Your task to perform on an android device: Search for seafood restaurants on Google Maps Image 0: 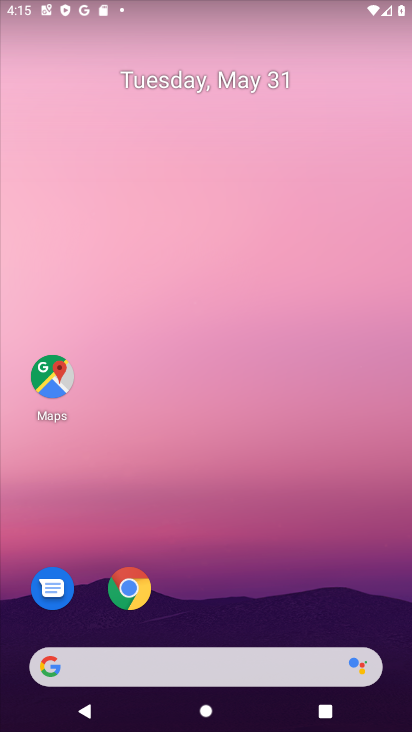
Step 0: click (186, 626)
Your task to perform on an android device: Search for seafood restaurants on Google Maps Image 1: 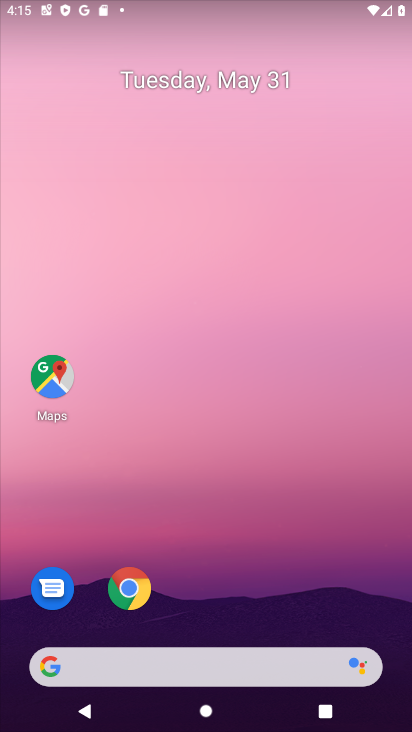
Step 1: click (52, 377)
Your task to perform on an android device: Search for seafood restaurants on Google Maps Image 2: 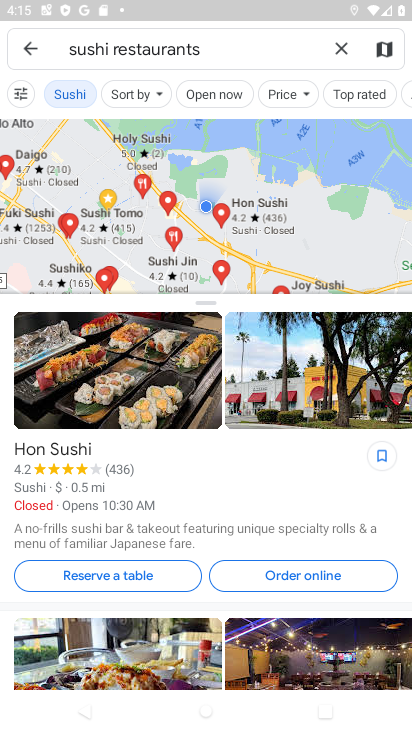
Step 2: click (345, 53)
Your task to perform on an android device: Search for seafood restaurants on Google Maps Image 3: 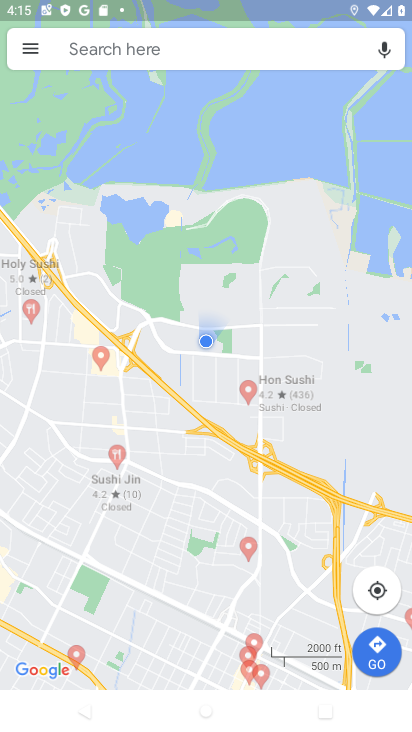
Step 3: click (221, 57)
Your task to perform on an android device: Search for seafood restaurants on Google Maps Image 4: 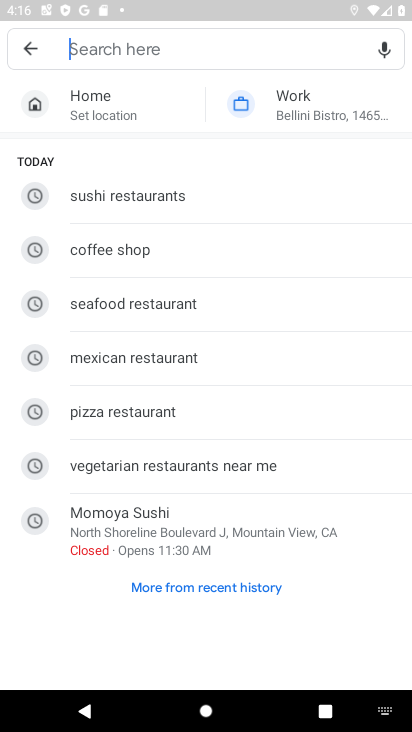
Step 4: click (150, 308)
Your task to perform on an android device: Search for seafood restaurants on Google Maps Image 5: 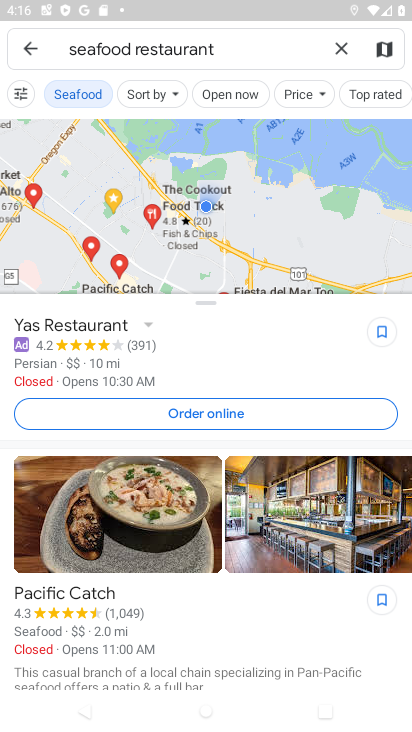
Step 5: task complete